Your task to perform on an android device: install app "Nova Launcher" Image 0: 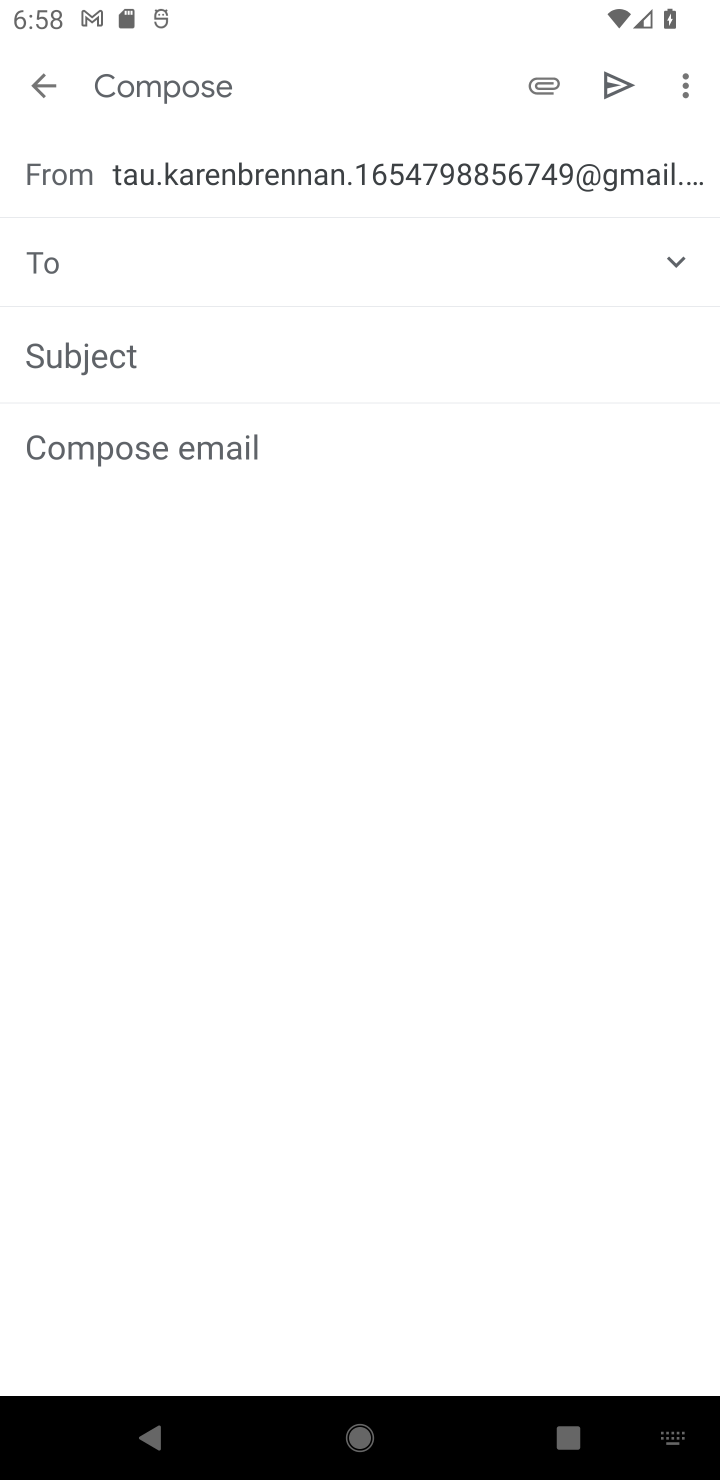
Step 0: press home button
Your task to perform on an android device: install app "Nova Launcher" Image 1: 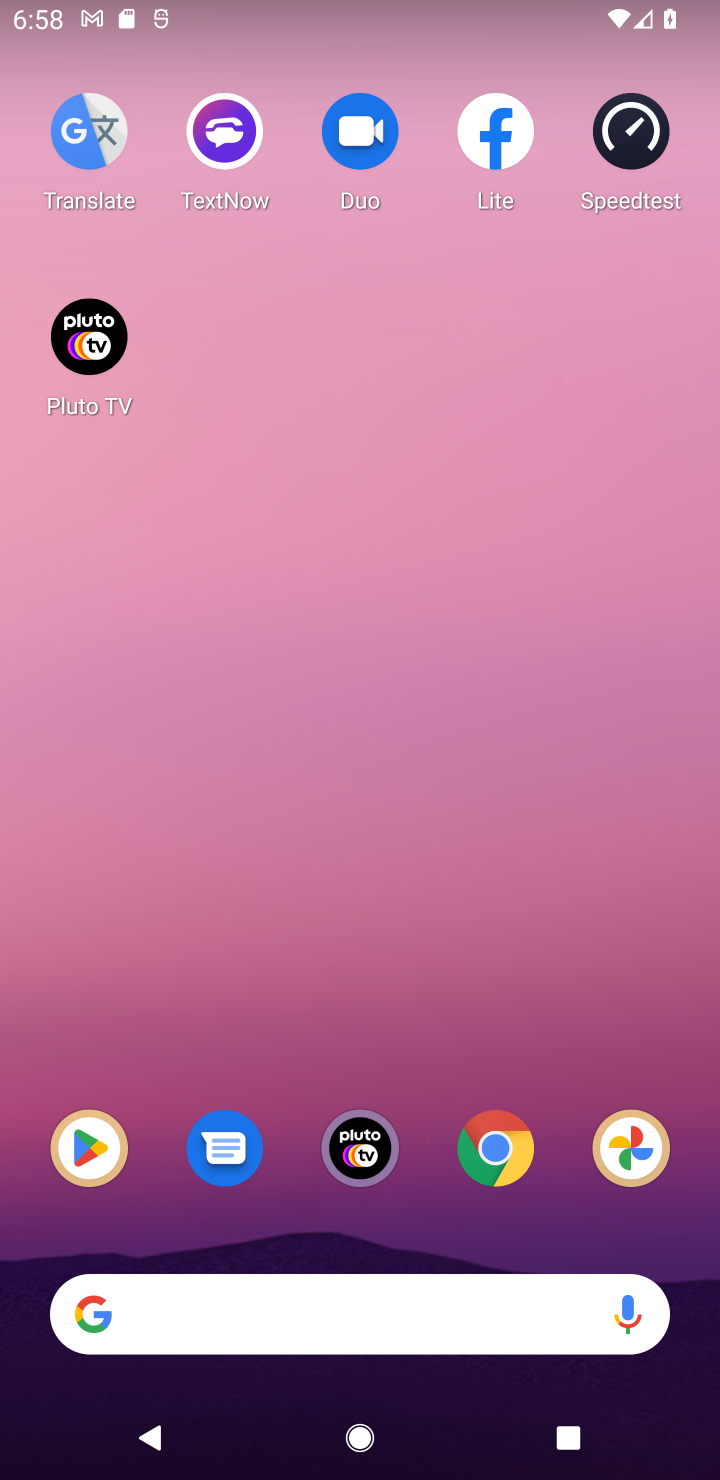
Step 1: drag from (664, 1238) to (245, 63)
Your task to perform on an android device: install app "Nova Launcher" Image 2: 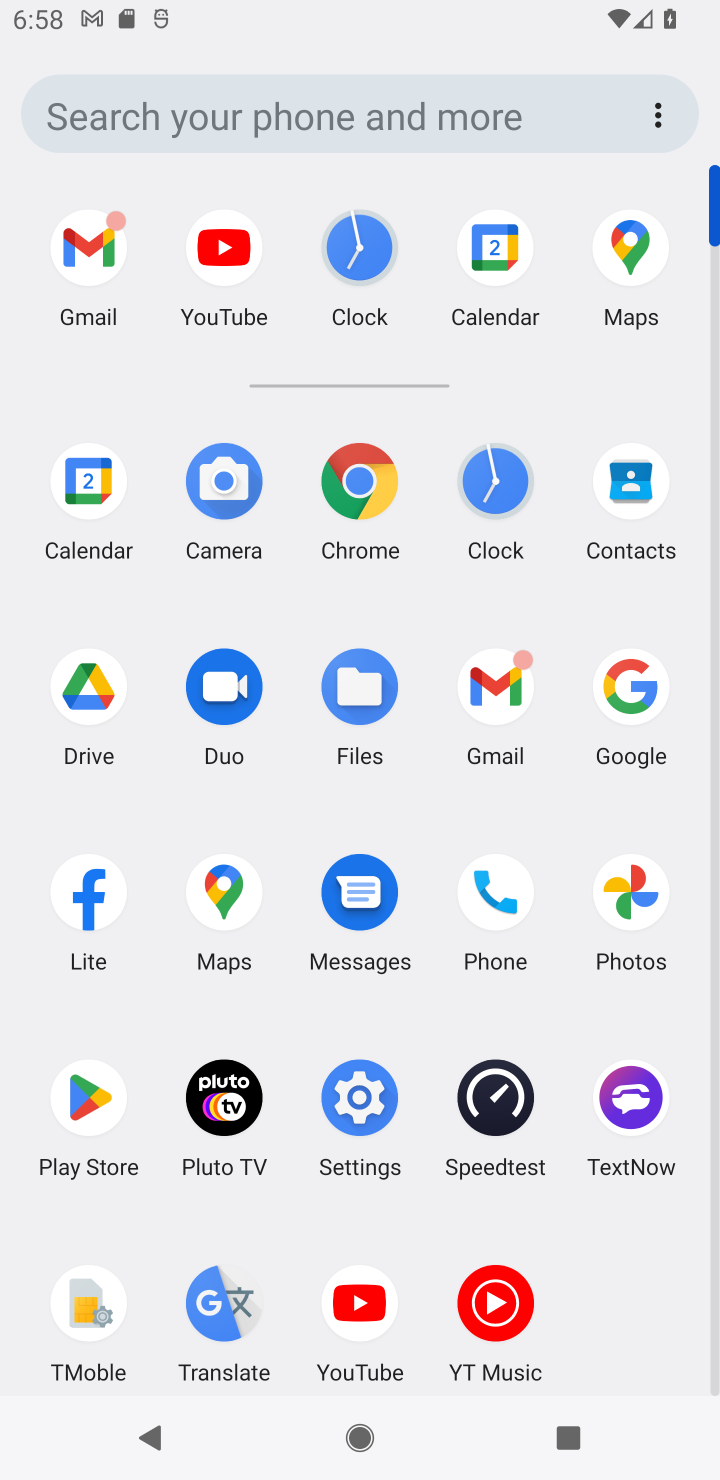
Step 2: click (76, 1107)
Your task to perform on an android device: install app "Nova Launcher" Image 3: 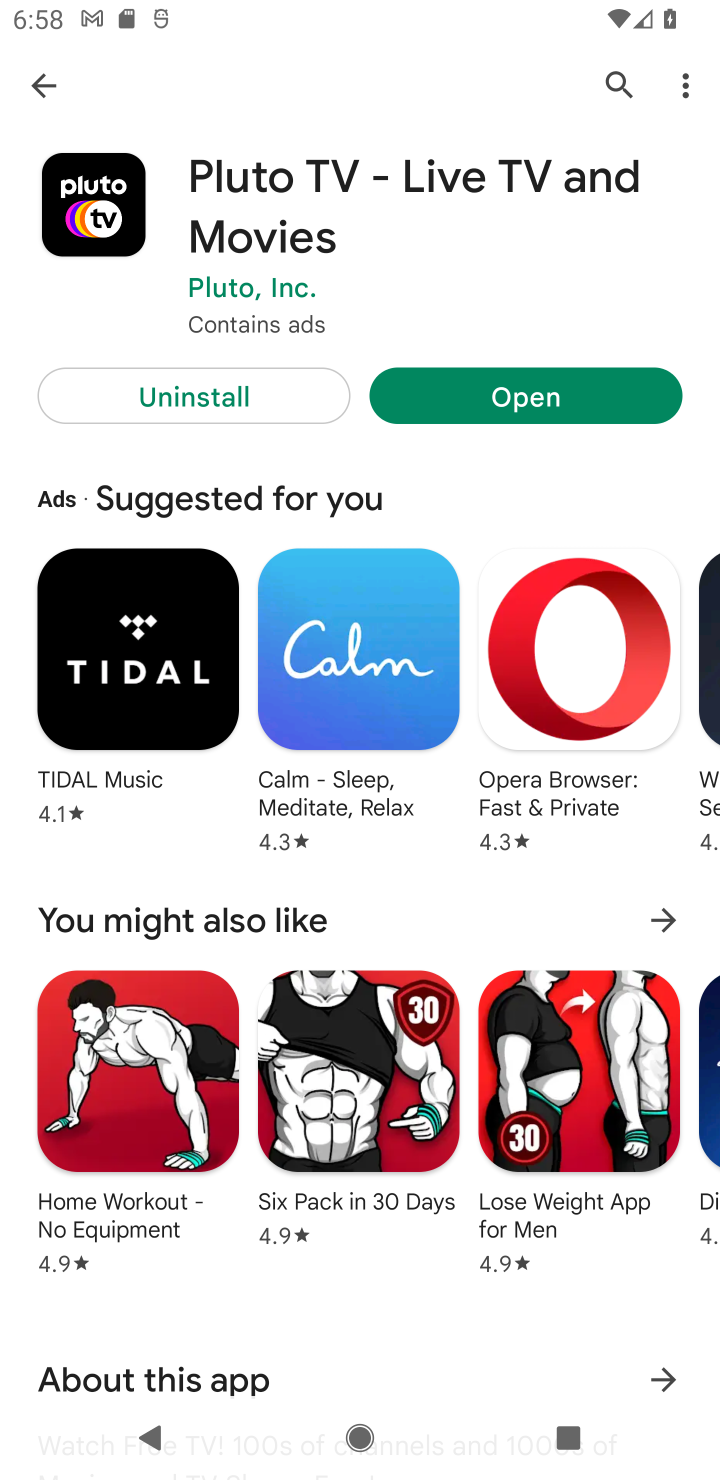
Step 3: press back button
Your task to perform on an android device: install app "Nova Launcher" Image 4: 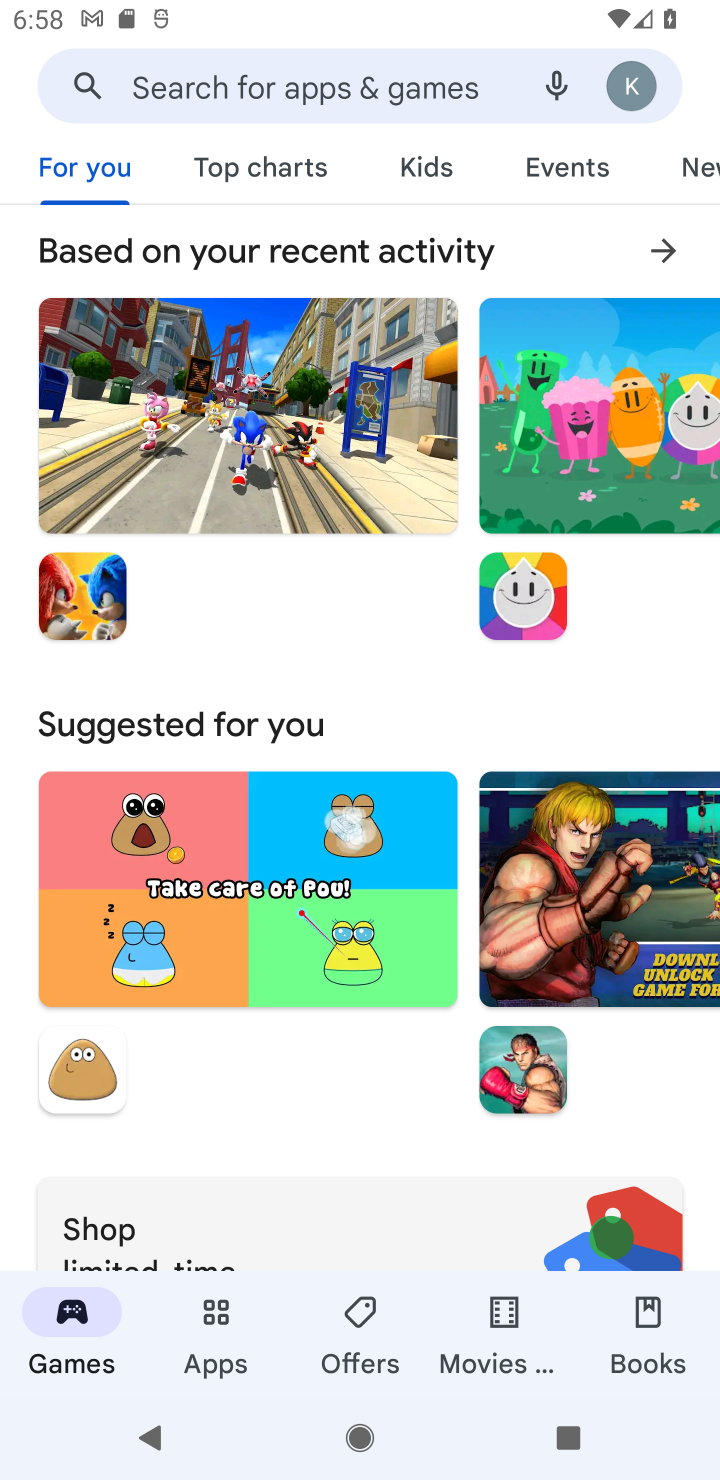
Step 4: click (258, 95)
Your task to perform on an android device: install app "Nova Launcher" Image 5: 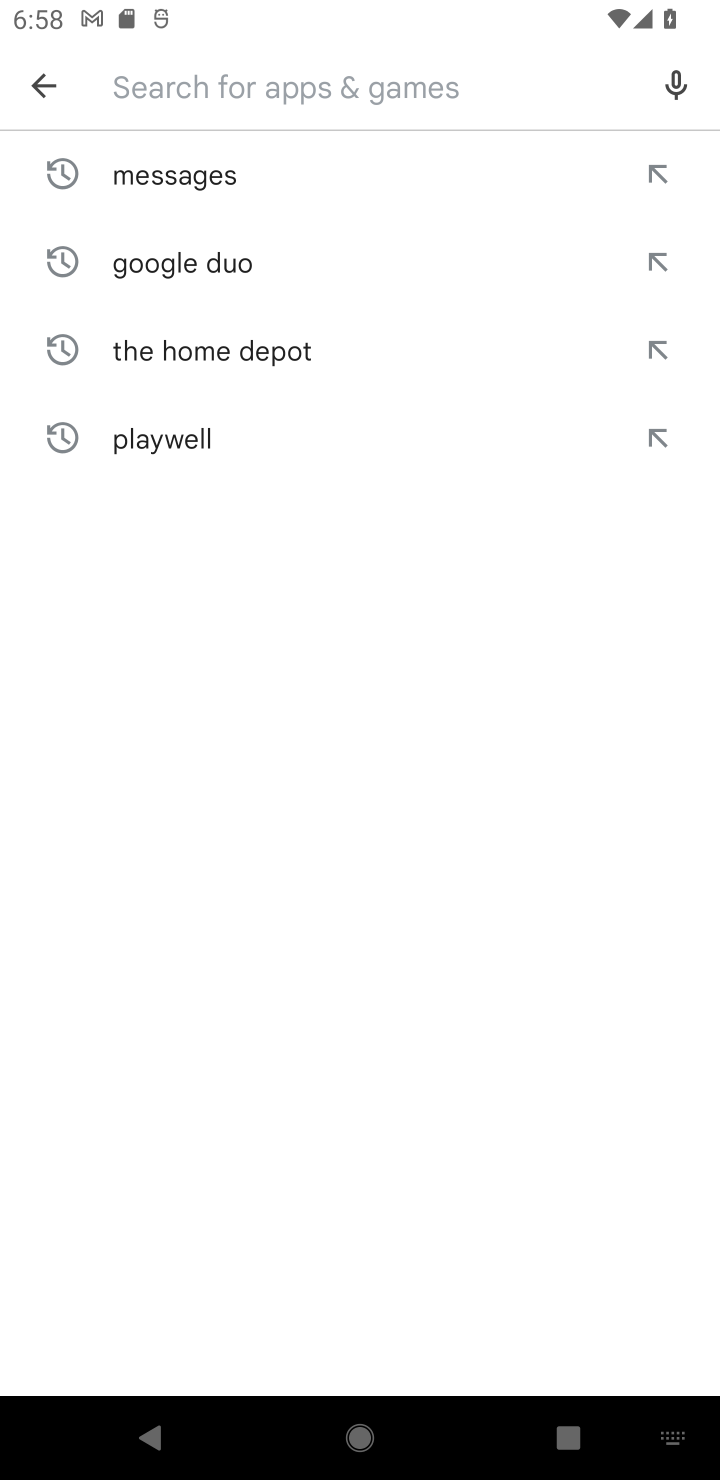
Step 5: type "Nova Launcher"
Your task to perform on an android device: install app "Nova Launcher" Image 6: 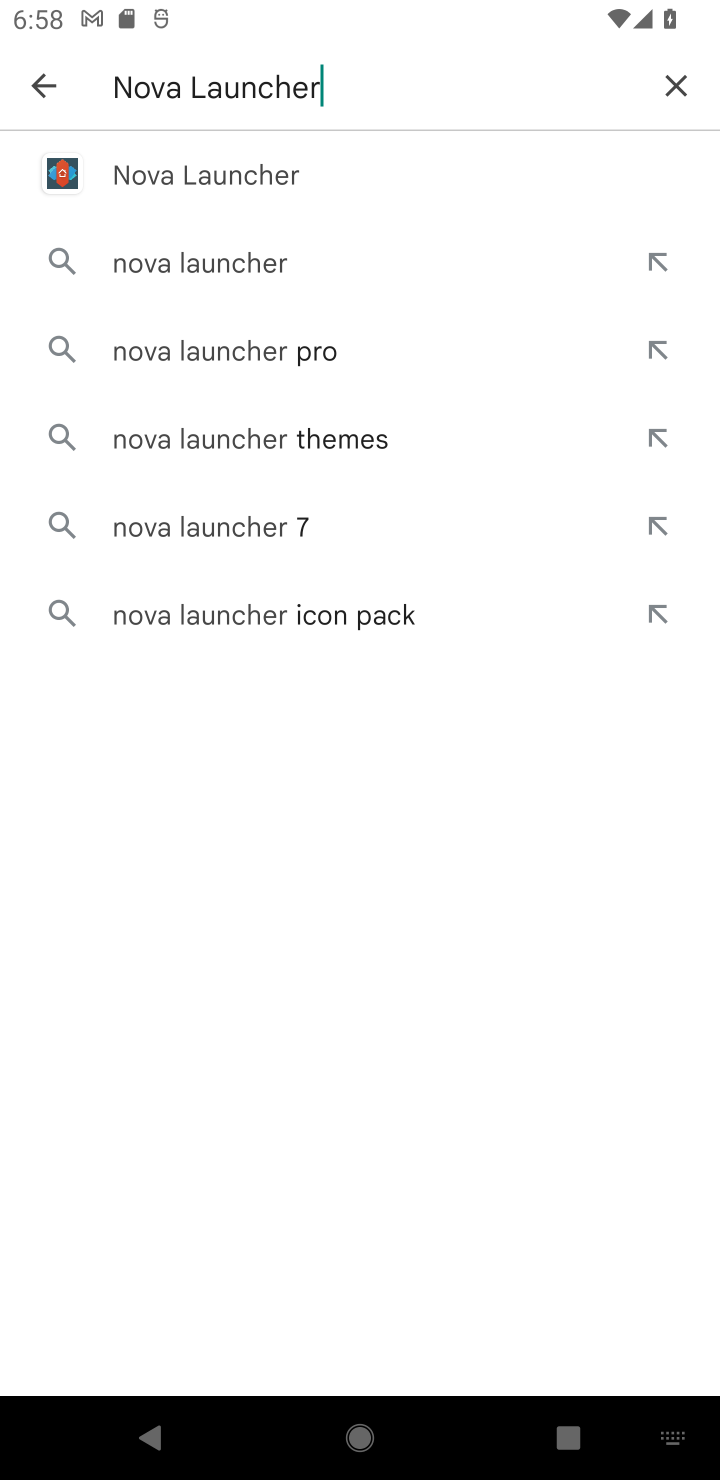
Step 6: click (208, 185)
Your task to perform on an android device: install app "Nova Launcher" Image 7: 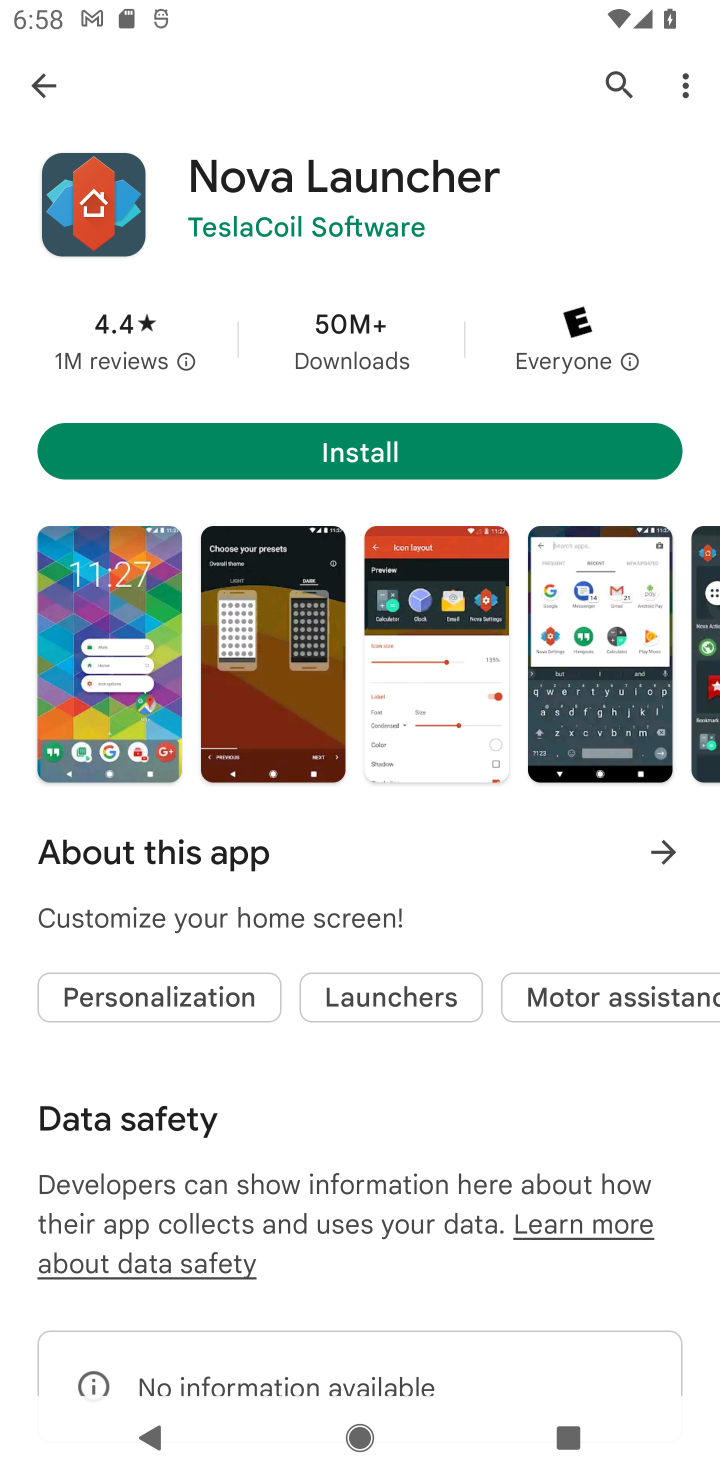
Step 7: click (301, 435)
Your task to perform on an android device: install app "Nova Launcher" Image 8: 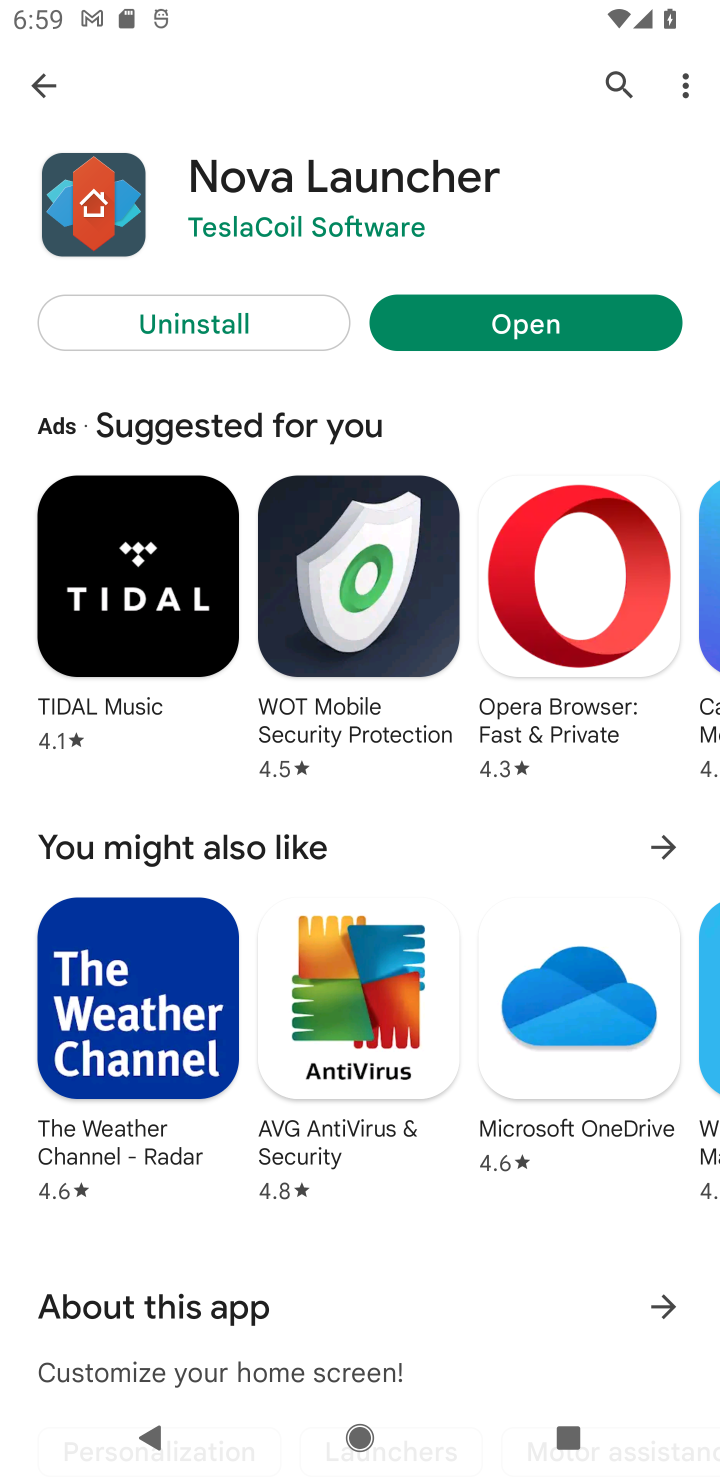
Step 8: task complete